Your task to perform on an android device: Open the web browser Image 0: 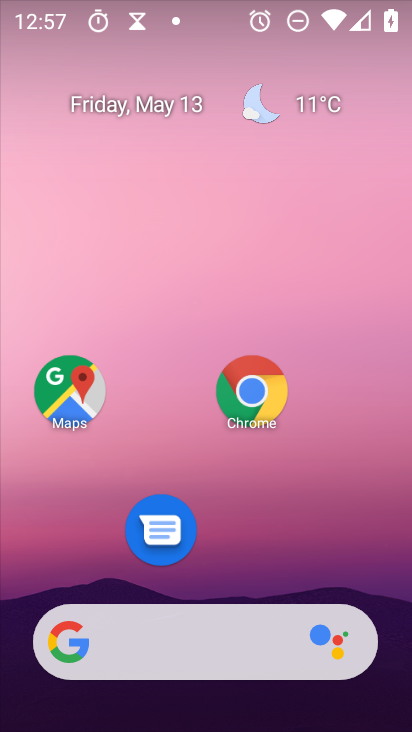
Step 0: press home button
Your task to perform on an android device: Open the web browser Image 1: 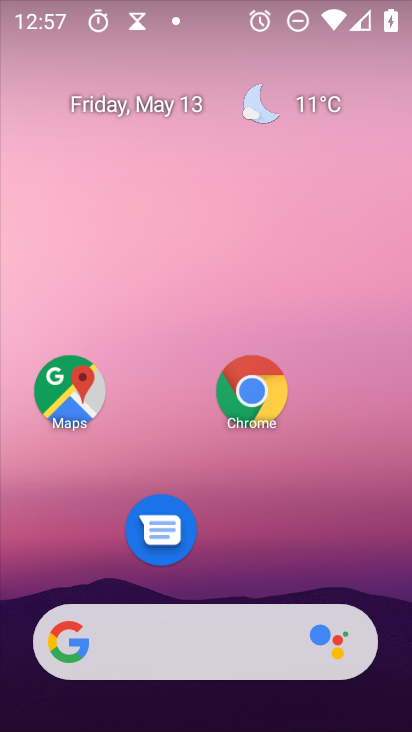
Step 1: click (250, 401)
Your task to perform on an android device: Open the web browser Image 2: 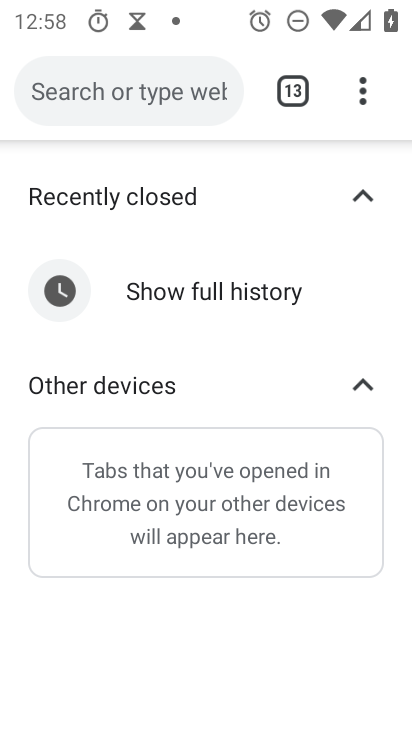
Step 2: task complete